Your task to perform on an android device: see tabs open on other devices in the chrome app Image 0: 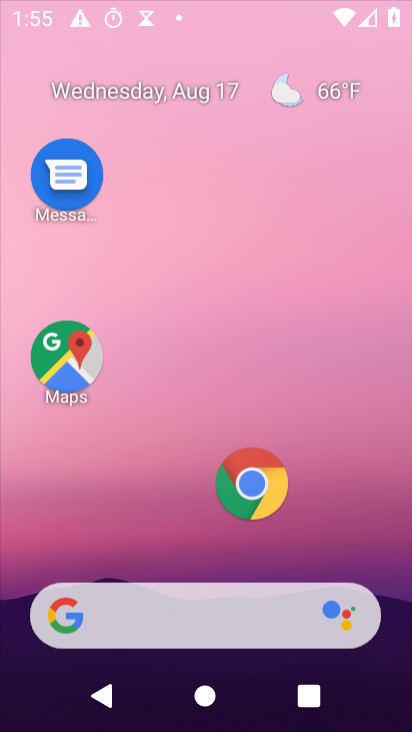
Step 0: press home button
Your task to perform on an android device: see tabs open on other devices in the chrome app Image 1: 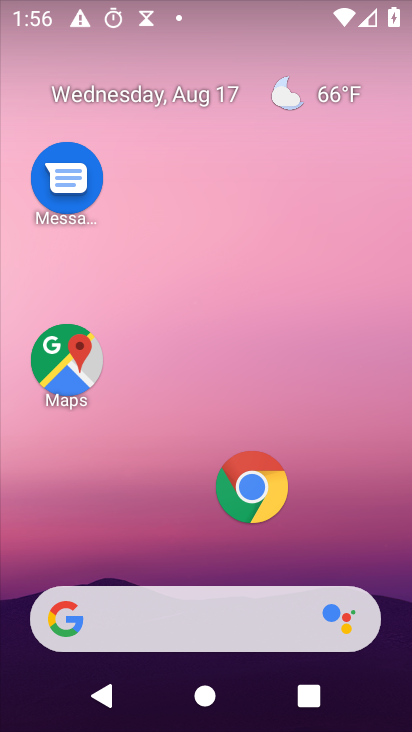
Step 1: click (267, 506)
Your task to perform on an android device: see tabs open on other devices in the chrome app Image 2: 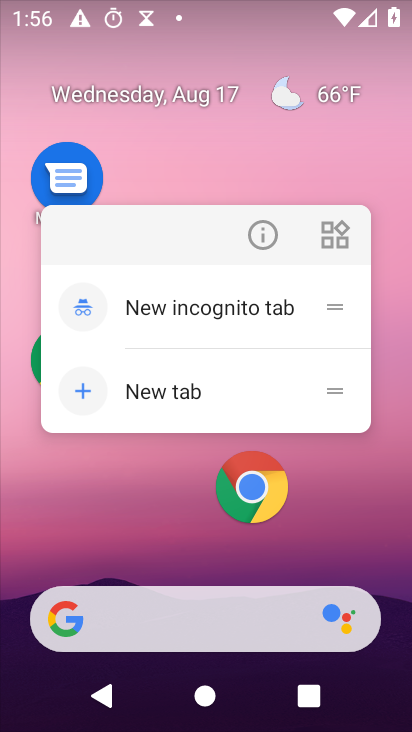
Step 2: click (267, 506)
Your task to perform on an android device: see tabs open on other devices in the chrome app Image 3: 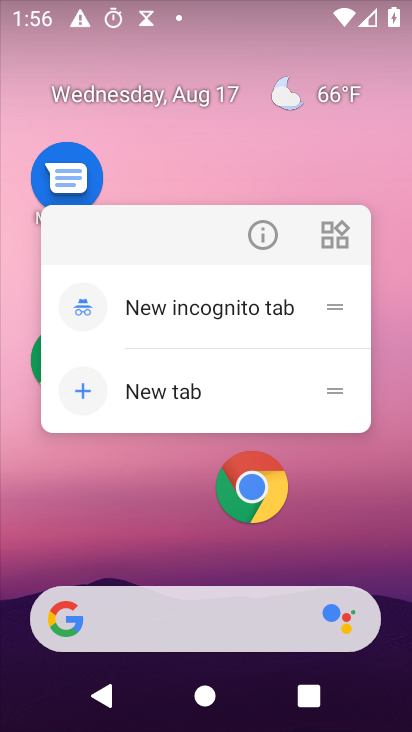
Step 3: click (254, 478)
Your task to perform on an android device: see tabs open on other devices in the chrome app Image 4: 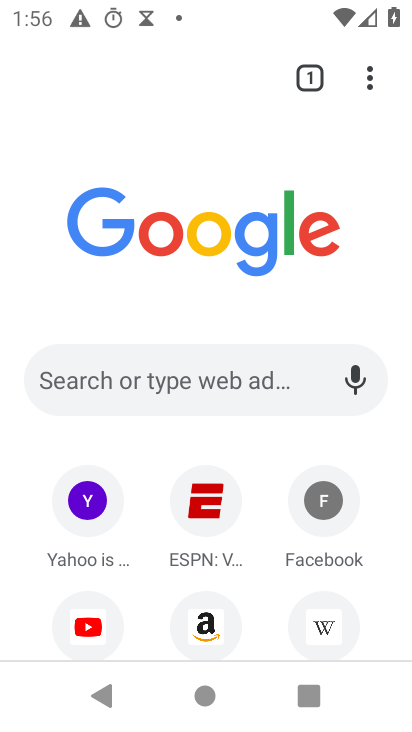
Step 4: click (375, 86)
Your task to perform on an android device: see tabs open on other devices in the chrome app Image 5: 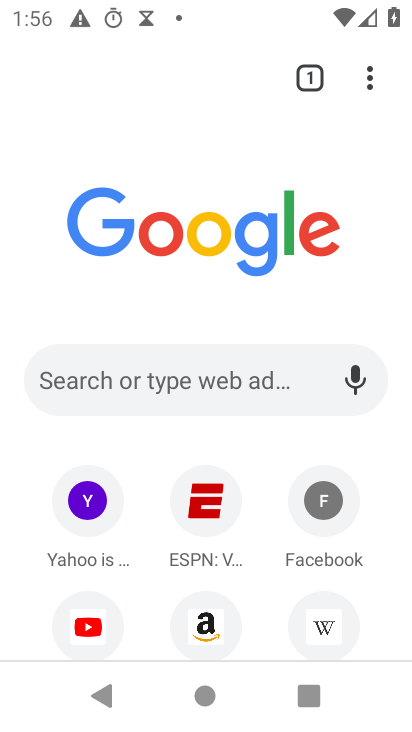
Step 5: task complete